Your task to perform on an android device: check google app version Image 0: 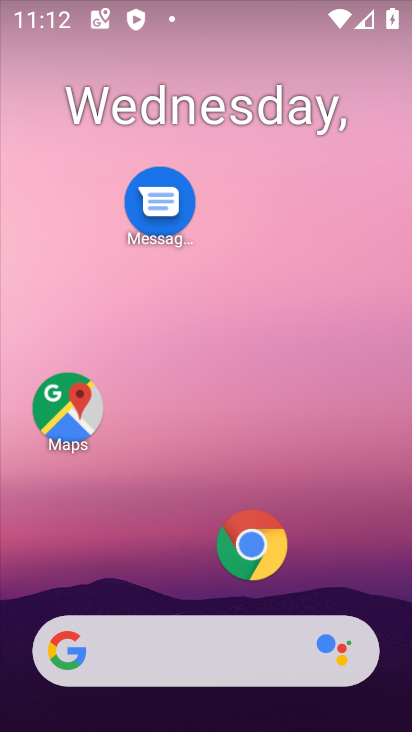
Step 0: drag from (193, 581) to (195, 189)
Your task to perform on an android device: check google app version Image 1: 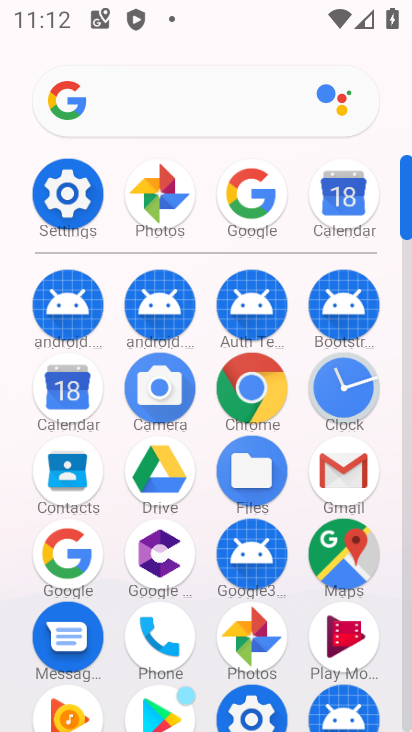
Step 1: click (80, 560)
Your task to perform on an android device: check google app version Image 2: 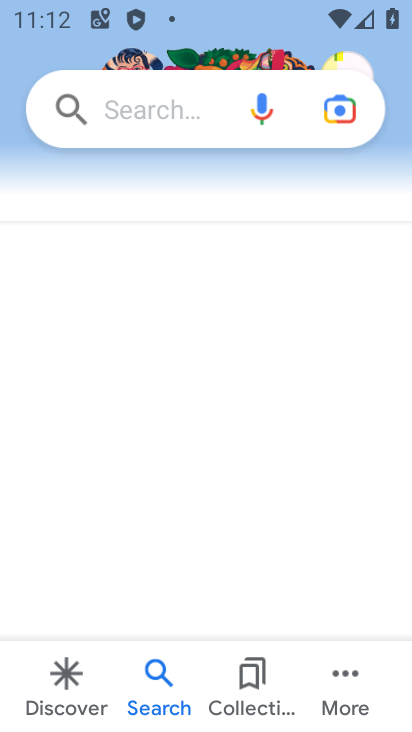
Step 2: click (336, 663)
Your task to perform on an android device: check google app version Image 3: 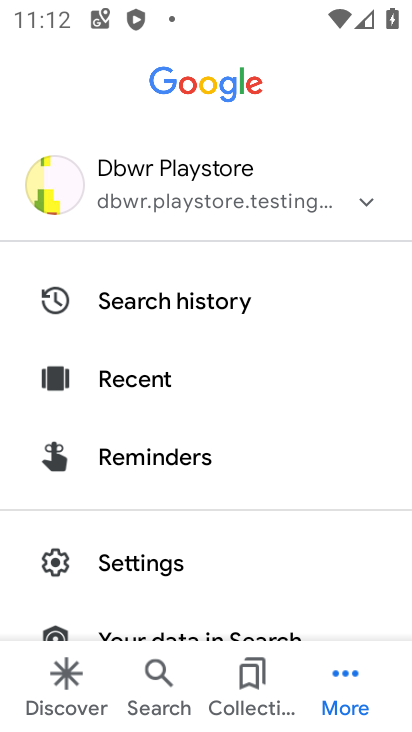
Step 3: drag from (235, 573) to (234, 337)
Your task to perform on an android device: check google app version Image 4: 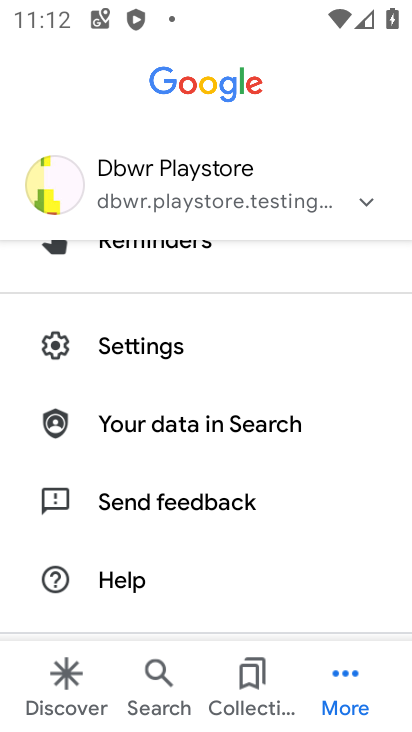
Step 4: click (155, 340)
Your task to perform on an android device: check google app version Image 5: 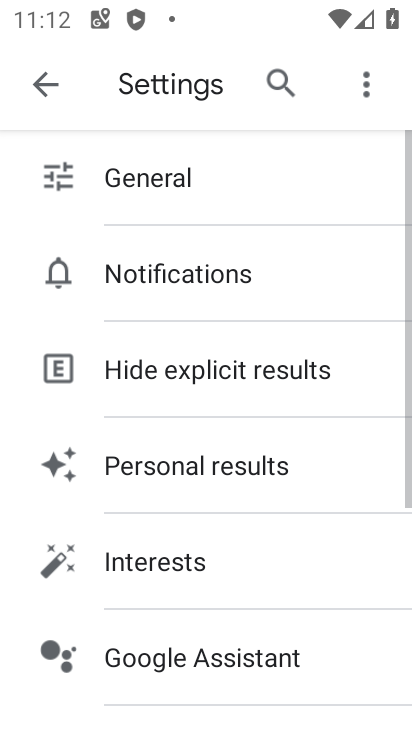
Step 5: drag from (171, 642) to (203, 325)
Your task to perform on an android device: check google app version Image 6: 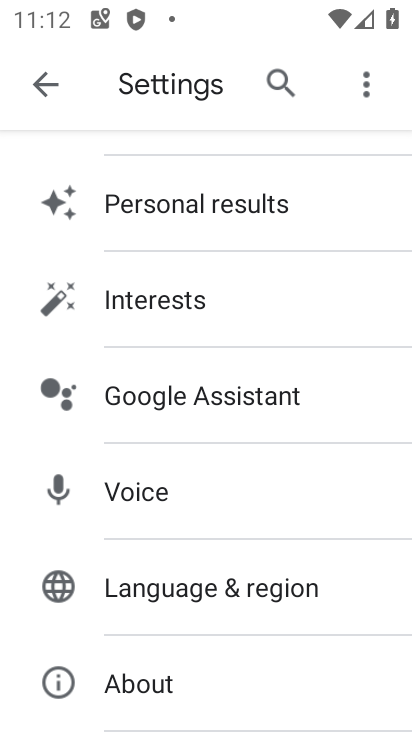
Step 6: click (155, 701)
Your task to perform on an android device: check google app version Image 7: 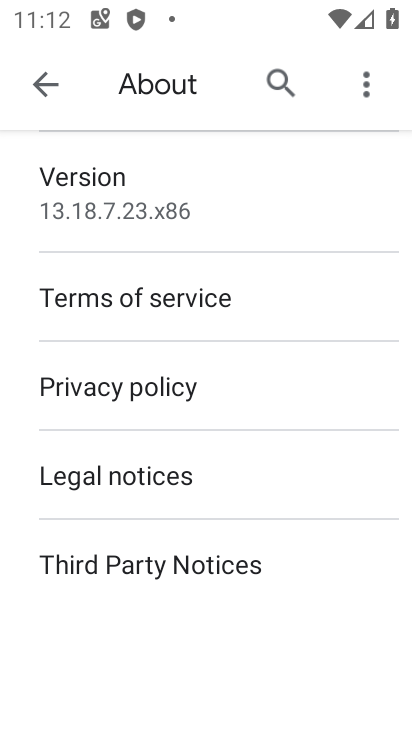
Step 7: click (168, 228)
Your task to perform on an android device: check google app version Image 8: 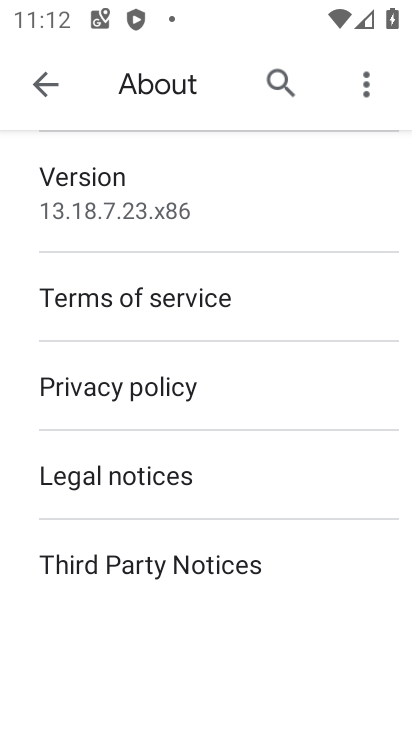
Step 8: task complete